Your task to perform on an android device: Search for vegetarian restaurants on Maps Image 0: 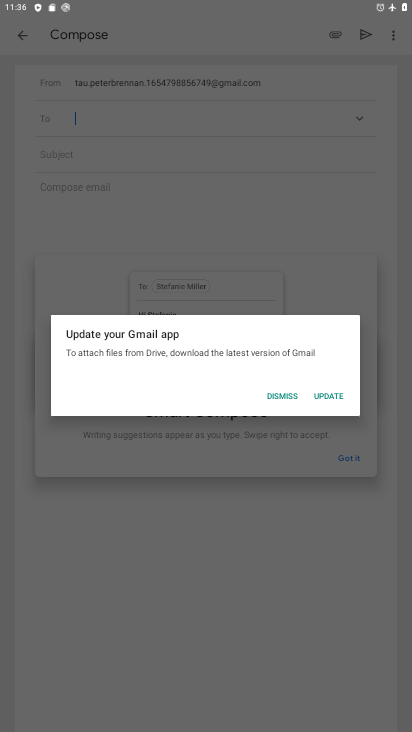
Step 0: press home button
Your task to perform on an android device: Search for vegetarian restaurants on Maps Image 1: 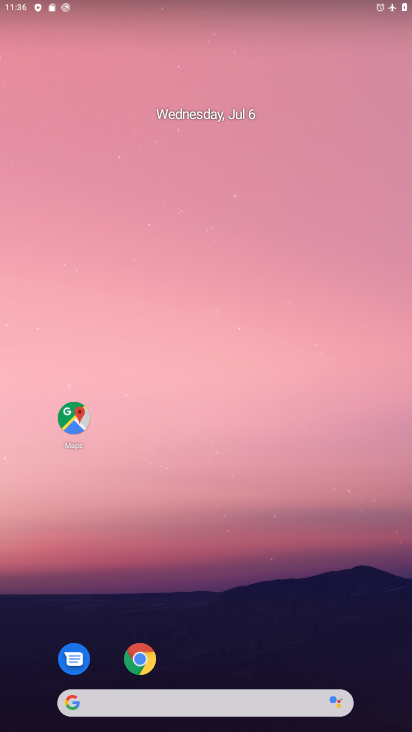
Step 1: click (76, 401)
Your task to perform on an android device: Search for vegetarian restaurants on Maps Image 2: 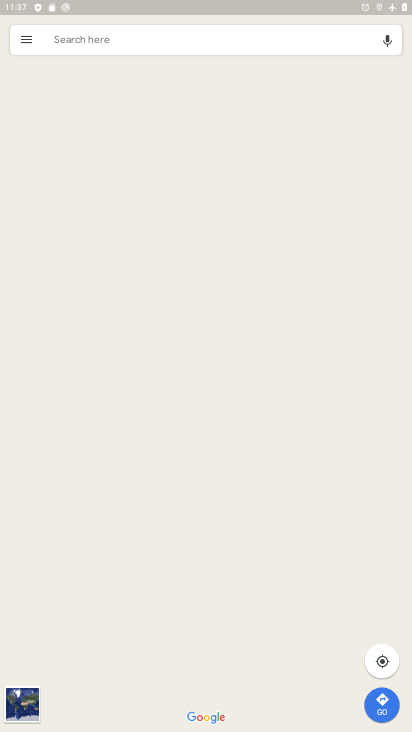
Step 2: click (168, 41)
Your task to perform on an android device: Search for vegetarian restaurants on Maps Image 3: 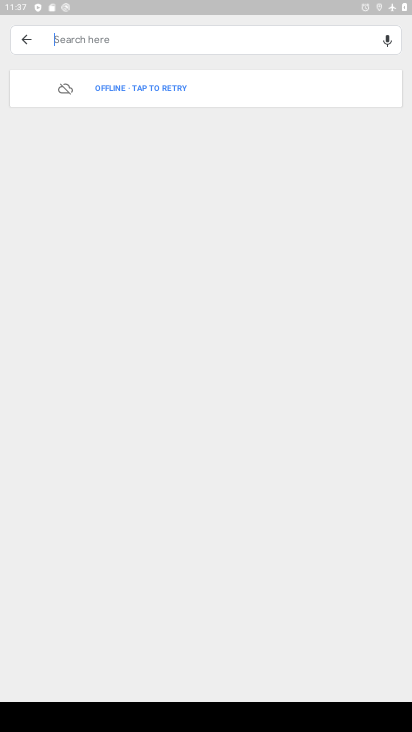
Step 3: drag from (172, 7) to (167, 718)
Your task to perform on an android device: Search for vegetarian restaurants on Maps Image 4: 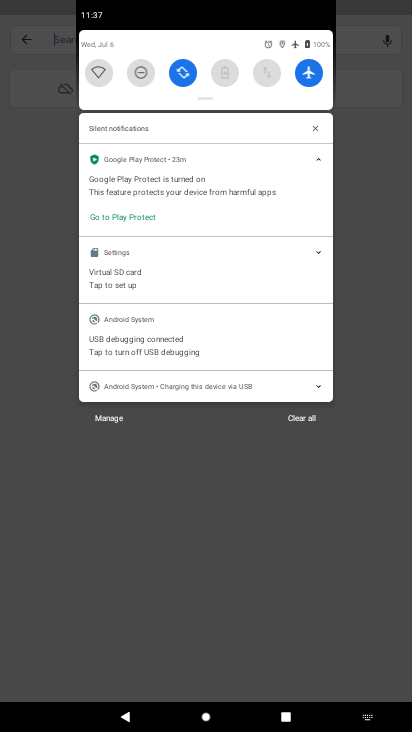
Step 4: click (311, 67)
Your task to perform on an android device: Search for vegetarian restaurants on Maps Image 5: 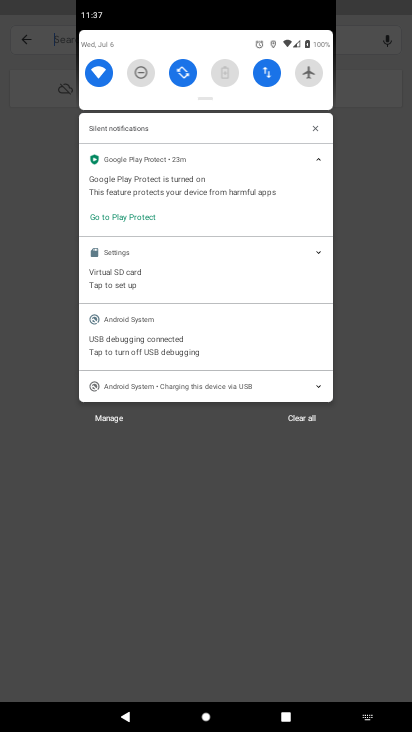
Step 5: task complete